Your task to perform on an android device: Check the weather Image 0: 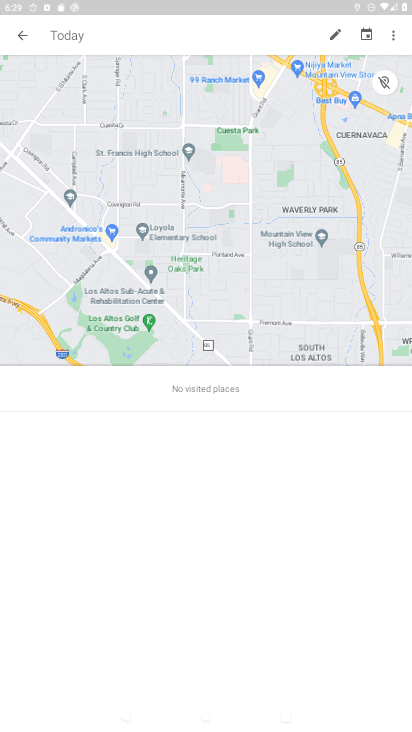
Step 0: press home button
Your task to perform on an android device: Check the weather Image 1: 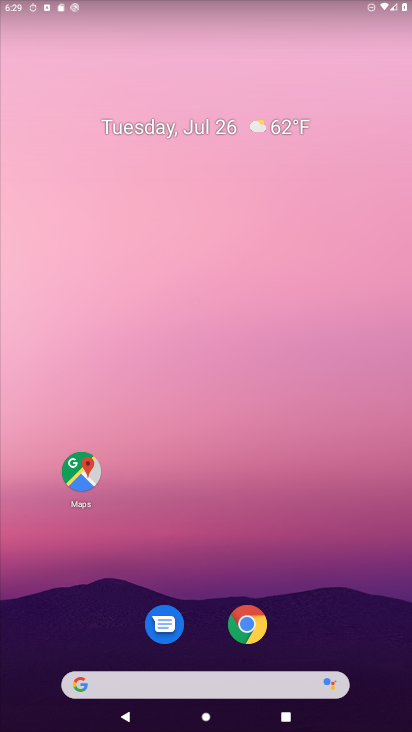
Step 1: drag from (207, 681) to (331, 53)
Your task to perform on an android device: Check the weather Image 2: 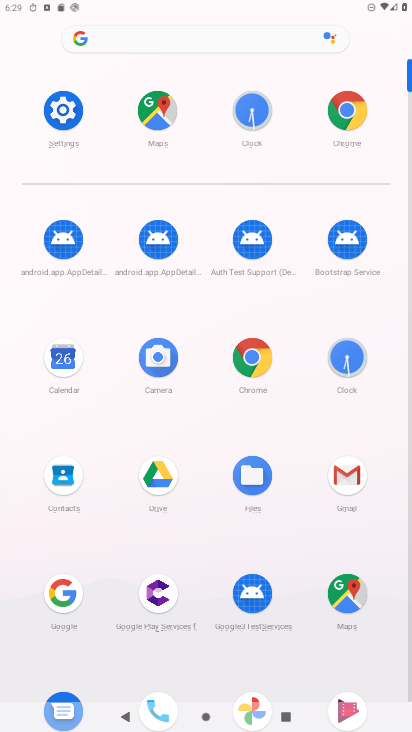
Step 2: click (249, 357)
Your task to perform on an android device: Check the weather Image 3: 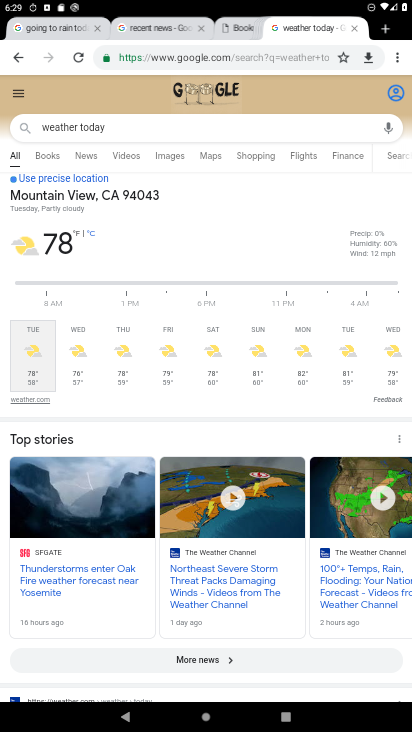
Step 3: click (243, 48)
Your task to perform on an android device: Check the weather Image 4: 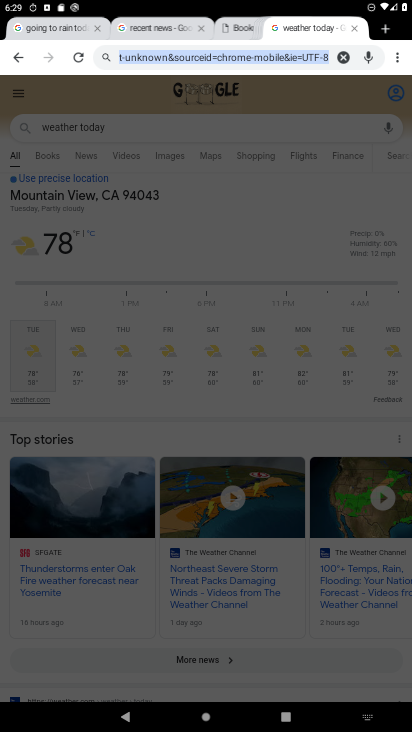
Step 4: type "check the weather"
Your task to perform on an android device: Check the weather Image 5: 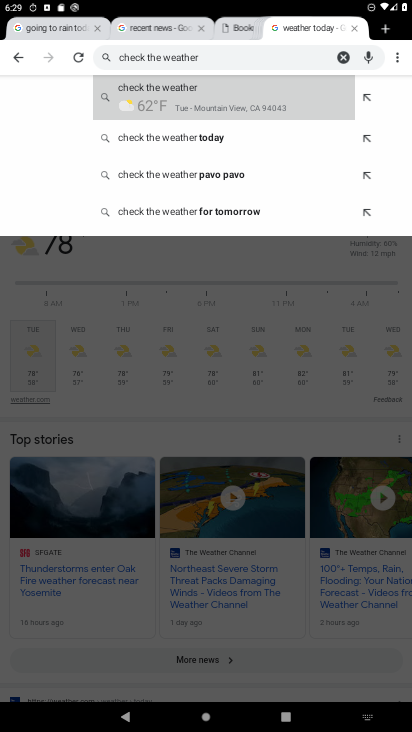
Step 5: click (304, 96)
Your task to perform on an android device: Check the weather Image 6: 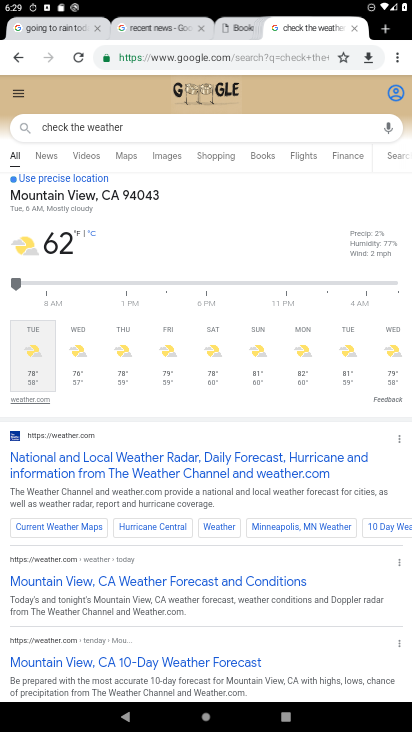
Step 6: task complete